Your task to perform on an android device: change text size in settings app Image 0: 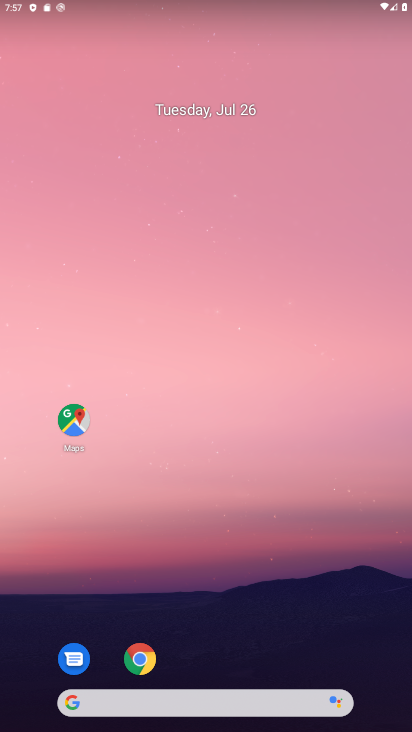
Step 0: drag from (234, 663) to (82, 102)
Your task to perform on an android device: change text size in settings app Image 1: 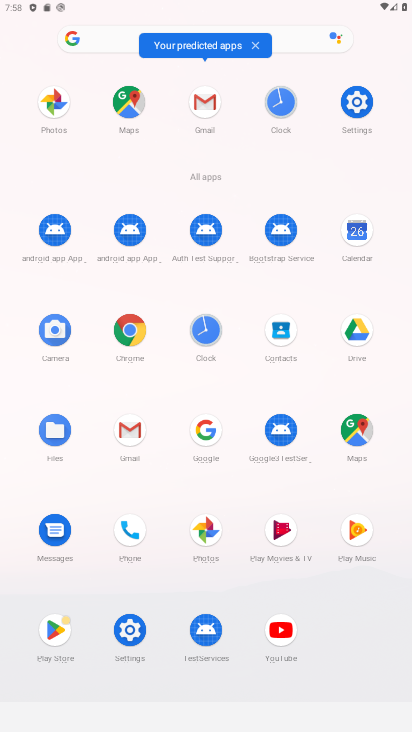
Step 1: click (345, 108)
Your task to perform on an android device: change text size in settings app Image 2: 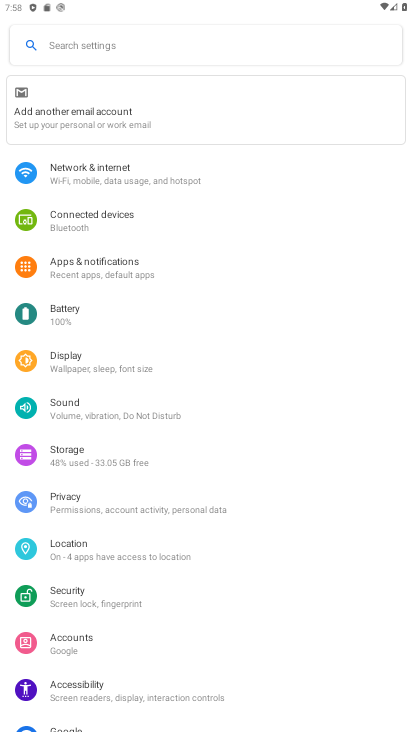
Step 2: click (59, 365)
Your task to perform on an android device: change text size in settings app Image 3: 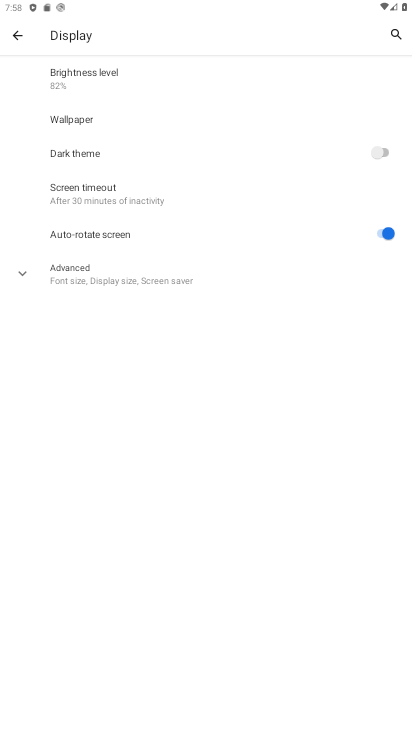
Step 3: click (79, 268)
Your task to perform on an android device: change text size in settings app Image 4: 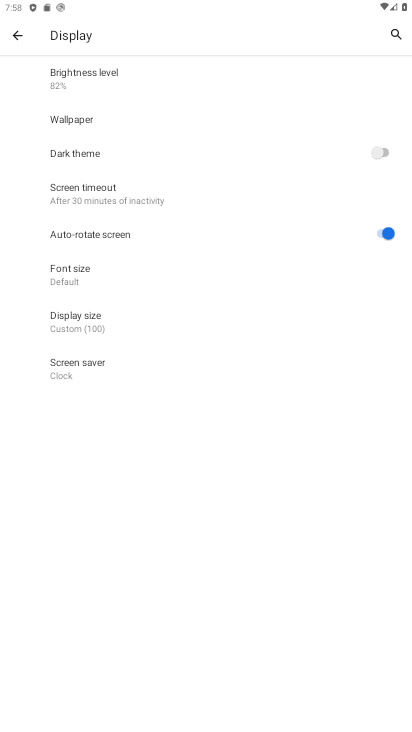
Step 4: click (83, 279)
Your task to perform on an android device: change text size in settings app Image 5: 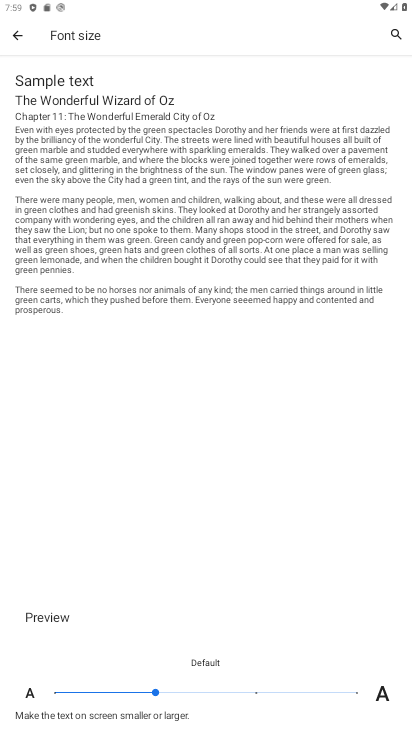
Step 5: click (254, 692)
Your task to perform on an android device: change text size in settings app Image 6: 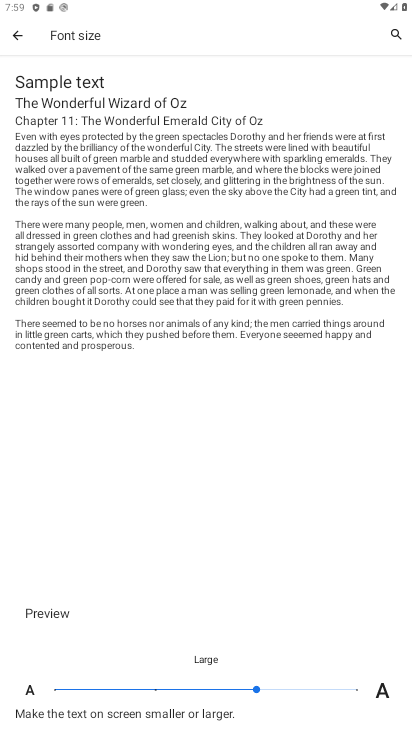
Step 6: task complete